Your task to perform on an android device: turn off wifi Image 0: 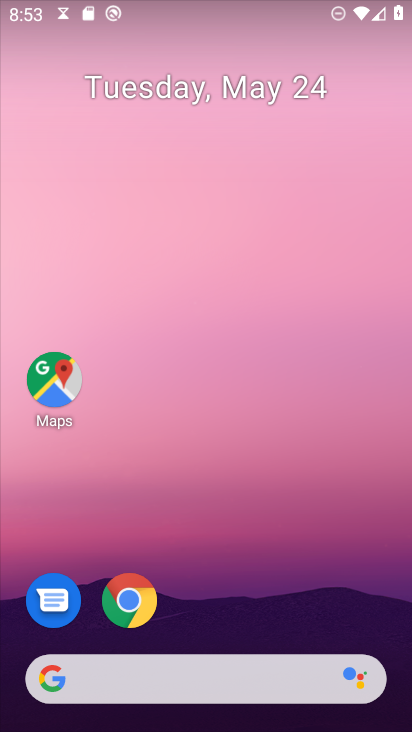
Step 0: drag from (145, 25) to (169, 524)
Your task to perform on an android device: turn off wifi Image 1: 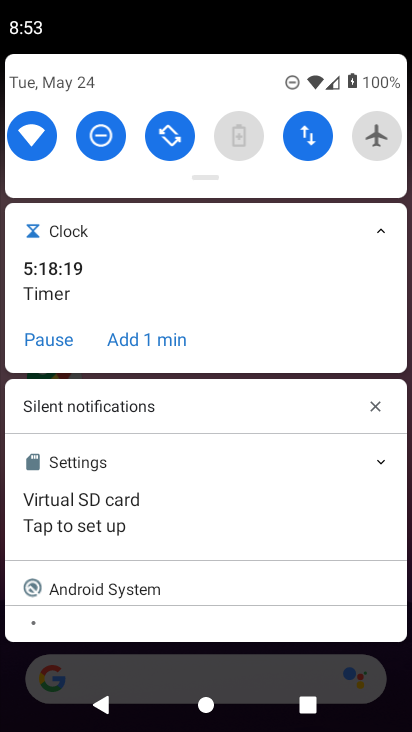
Step 1: click (22, 139)
Your task to perform on an android device: turn off wifi Image 2: 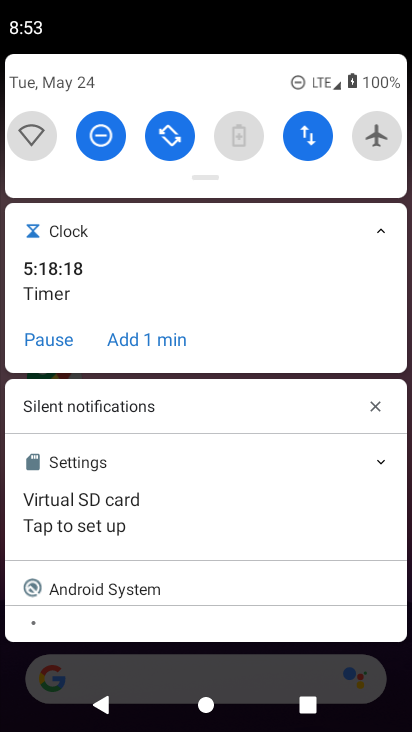
Step 2: task complete